Your task to perform on an android device: Open calendar and show me the third week of next month Image 0: 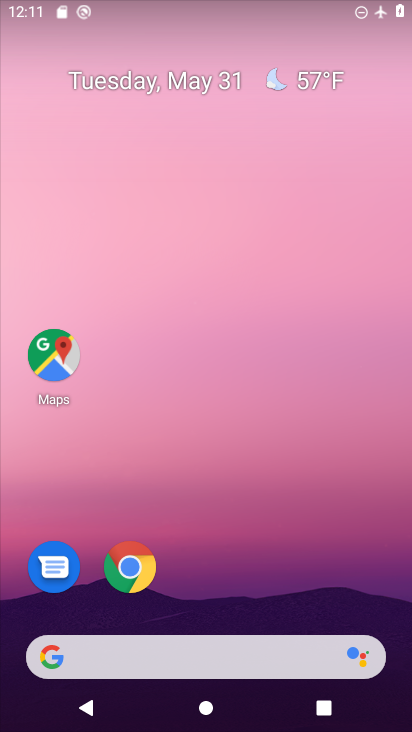
Step 0: drag from (169, 597) to (169, 175)
Your task to perform on an android device: Open calendar and show me the third week of next month Image 1: 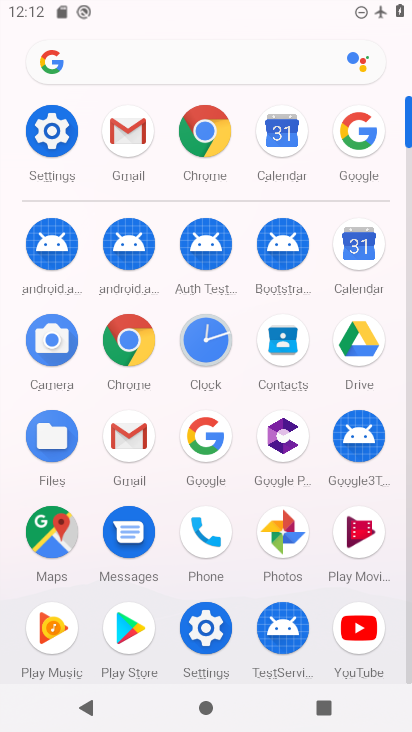
Step 1: click (284, 137)
Your task to perform on an android device: Open calendar and show me the third week of next month Image 2: 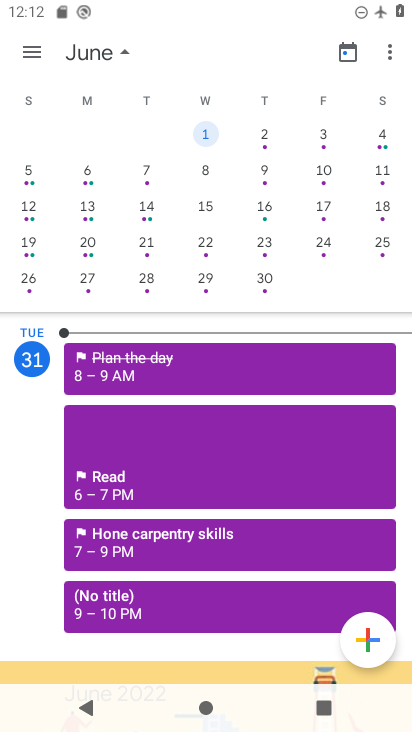
Step 2: drag from (347, 197) to (248, 179)
Your task to perform on an android device: Open calendar and show me the third week of next month Image 3: 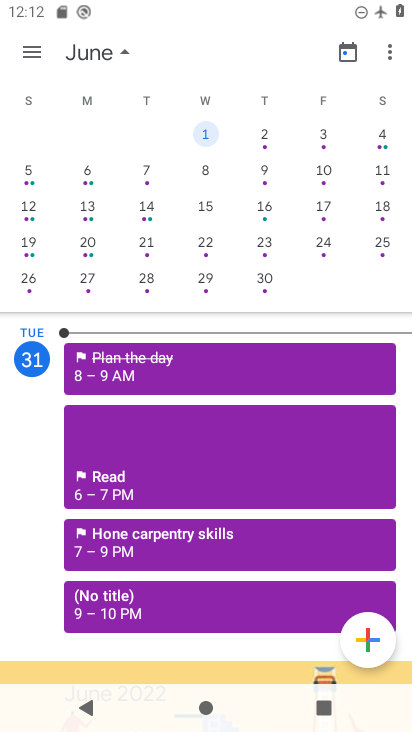
Step 3: click (28, 217)
Your task to perform on an android device: Open calendar and show me the third week of next month Image 4: 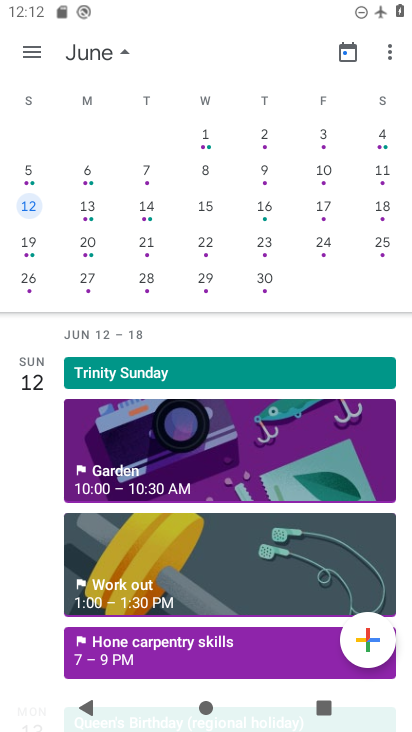
Step 4: task complete